Your task to perform on an android device: Play the last video I watched on Youtube Image 0: 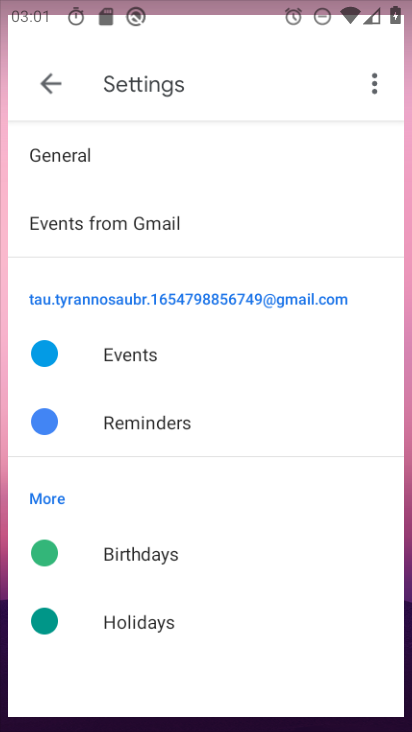
Step 0: drag from (351, 517) to (270, 6)
Your task to perform on an android device: Play the last video I watched on Youtube Image 1: 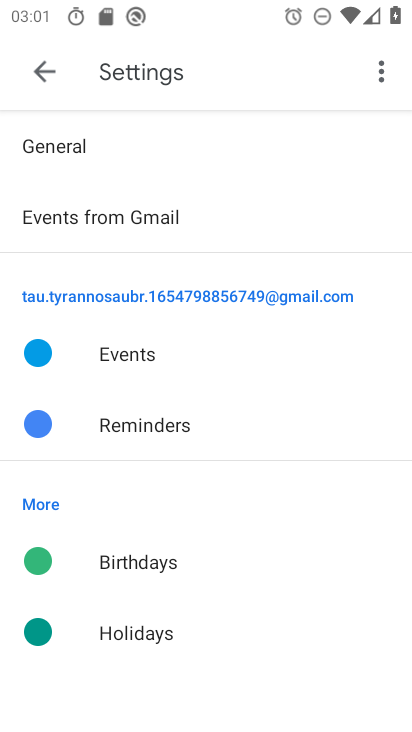
Step 1: press home button
Your task to perform on an android device: Play the last video I watched on Youtube Image 2: 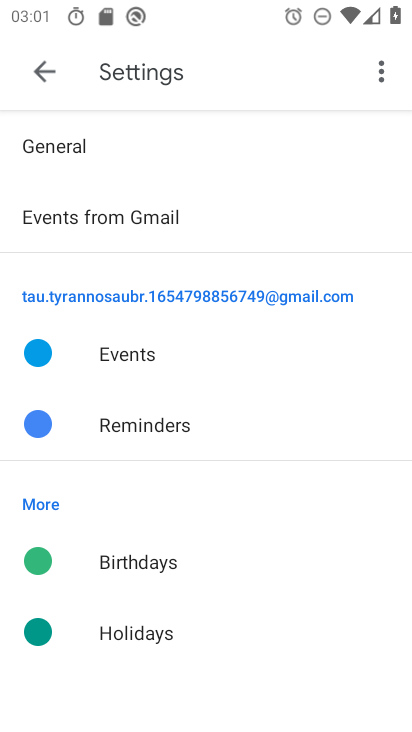
Step 2: press home button
Your task to perform on an android device: Play the last video I watched on Youtube Image 3: 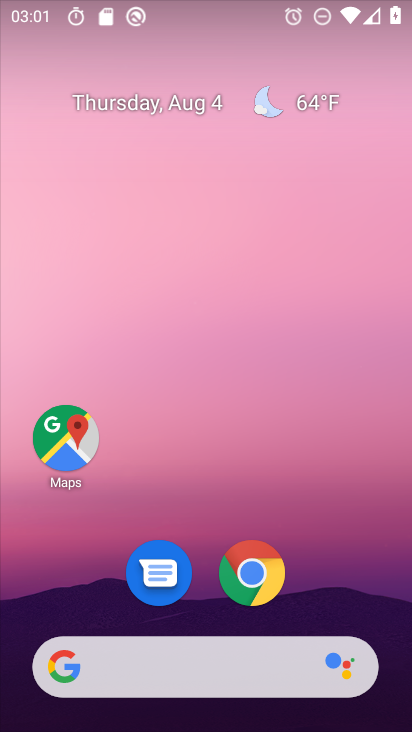
Step 3: press home button
Your task to perform on an android device: Play the last video I watched on Youtube Image 4: 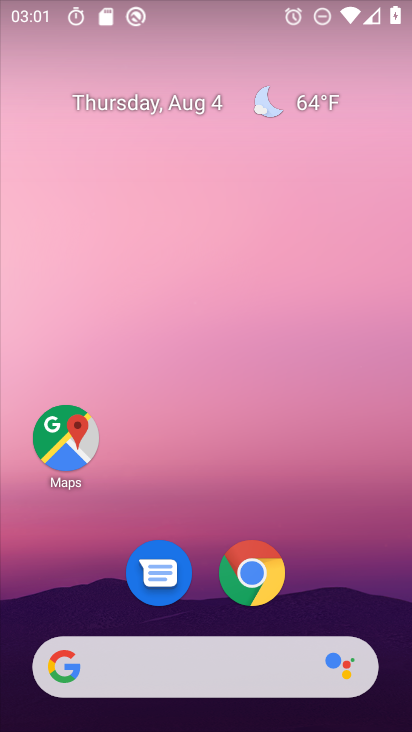
Step 4: drag from (299, 524) to (201, 53)
Your task to perform on an android device: Play the last video I watched on Youtube Image 5: 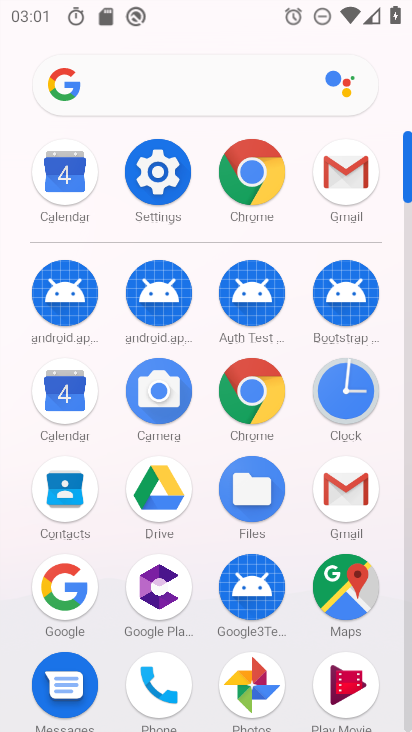
Step 5: drag from (294, 537) to (300, 116)
Your task to perform on an android device: Play the last video I watched on Youtube Image 6: 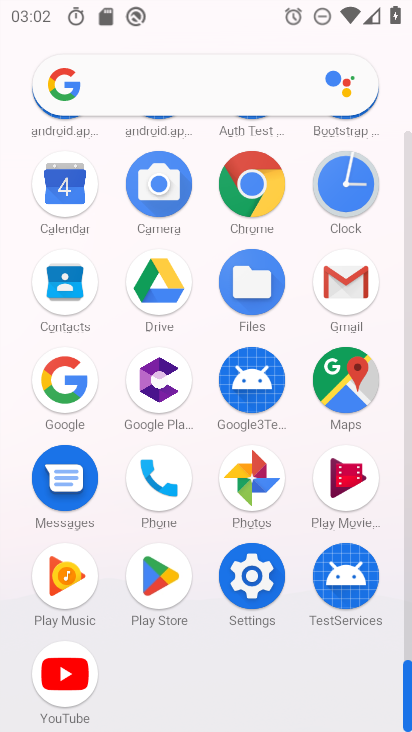
Step 6: click (69, 663)
Your task to perform on an android device: Play the last video I watched on Youtube Image 7: 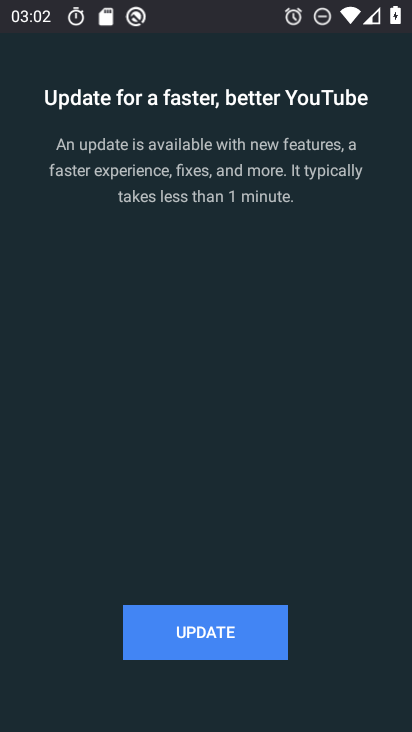
Step 7: click (214, 631)
Your task to perform on an android device: Play the last video I watched on Youtube Image 8: 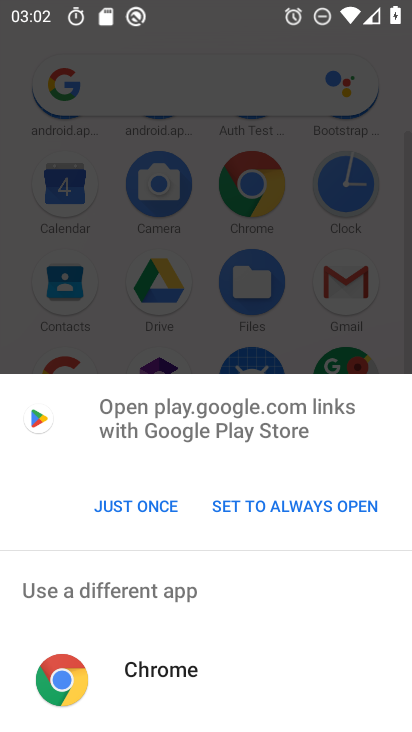
Step 8: click (160, 509)
Your task to perform on an android device: Play the last video I watched on Youtube Image 9: 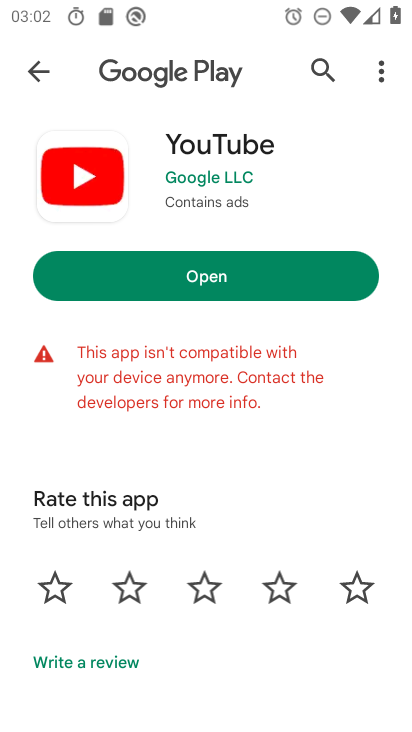
Step 9: task complete